Your task to perform on an android device: What's on my calendar today? Image 0: 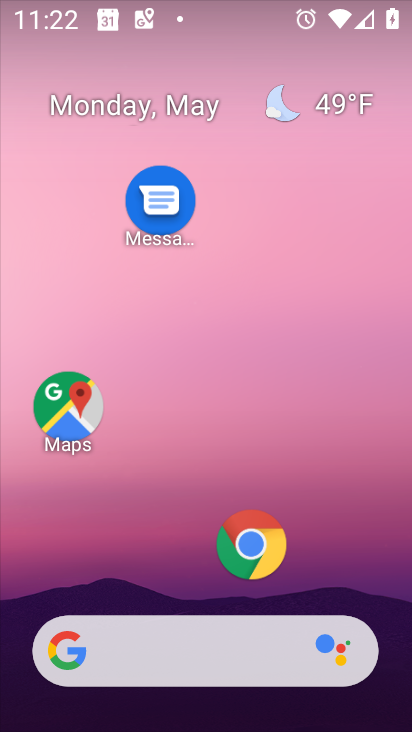
Step 0: drag from (179, 580) to (186, 4)
Your task to perform on an android device: What's on my calendar today? Image 1: 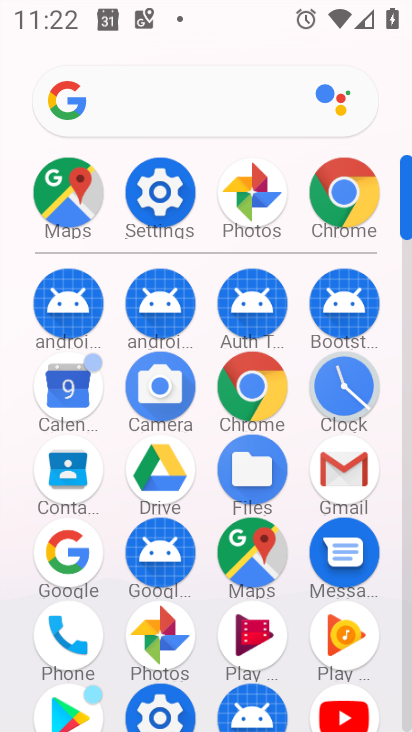
Step 1: click (59, 381)
Your task to perform on an android device: What's on my calendar today? Image 2: 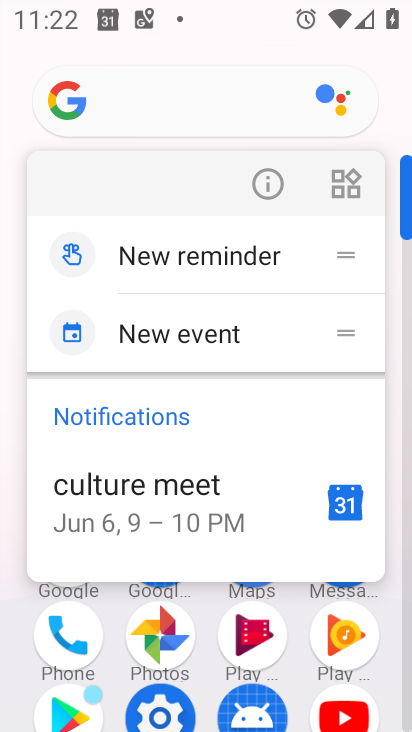
Step 2: press home button
Your task to perform on an android device: What's on my calendar today? Image 3: 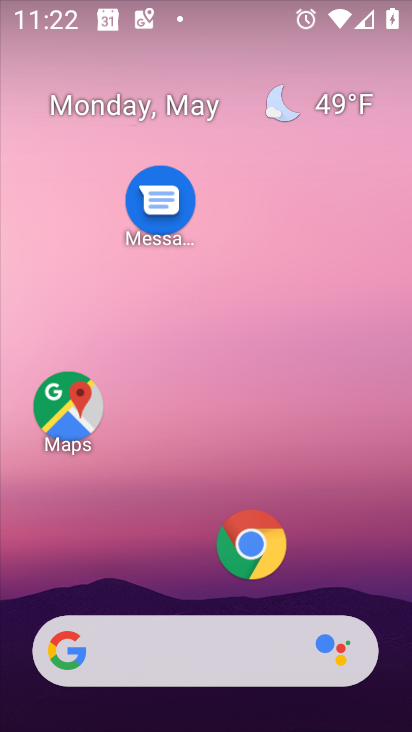
Step 3: drag from (112, 595) to (99, 299)
Your task to perform on an android device: What's on my calendar today? Image 4: 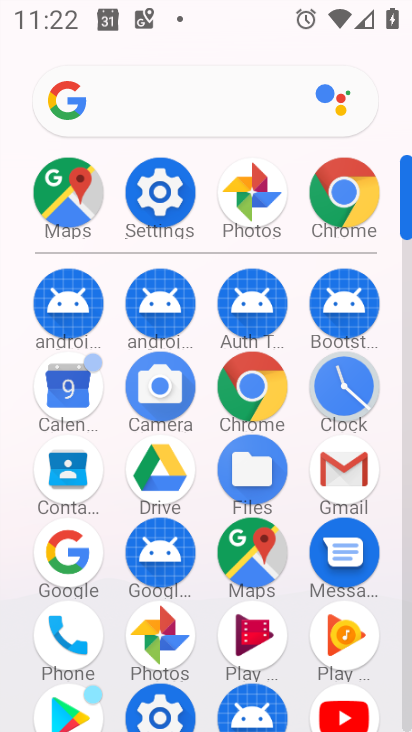
Step 4: click (68, 399)
Your task to perform on an android device: What's on my calendar today? Image 5: 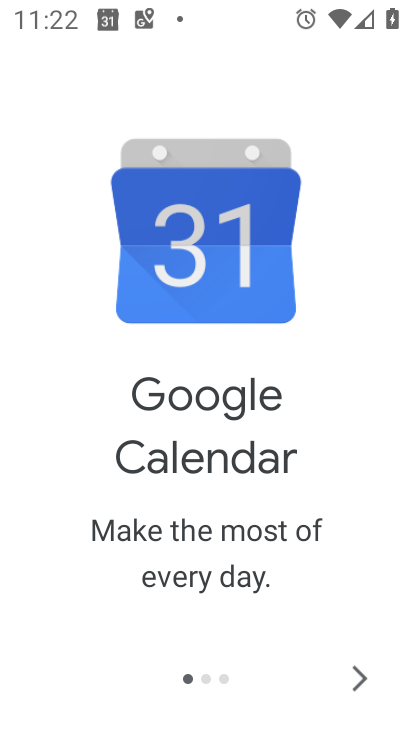
Step 5: click (348, 689)
Your task to perform on an android device: What's on my calendar today? Image 6: 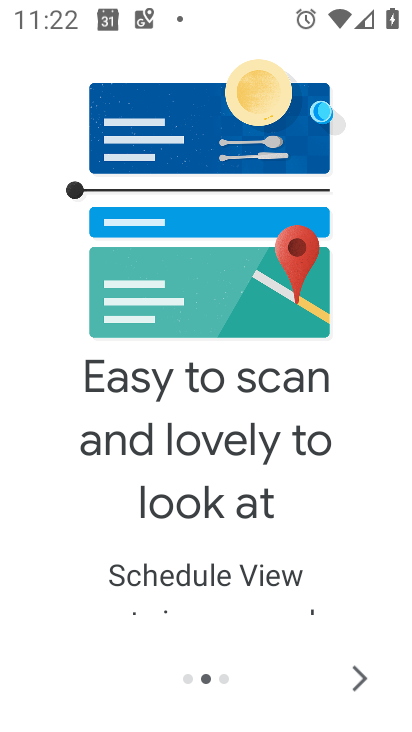
Step 6: click (348, 689)
Your task to perform on an android device: What's on my calendar today? Image 7: 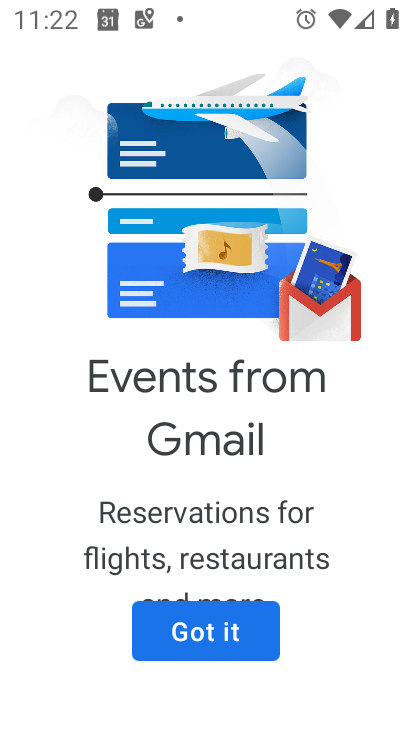
Step 7: click (183, 651)
Your task to perform on an android device: What's on my calendar today? Image 8: 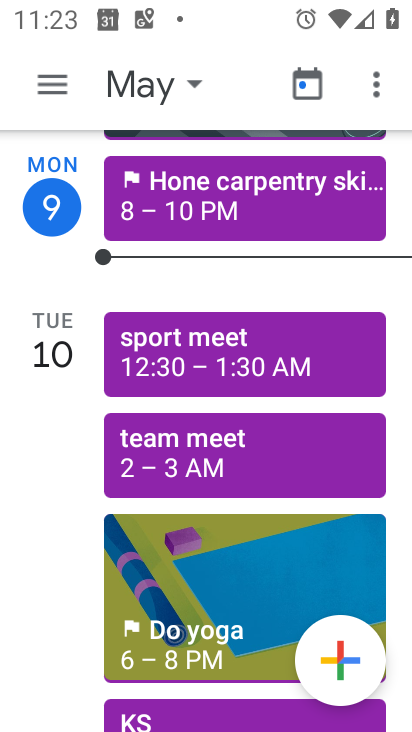
Step 8: click (123, 105)
Your task to perform on an android device: What's on my calendar today? Image 9: 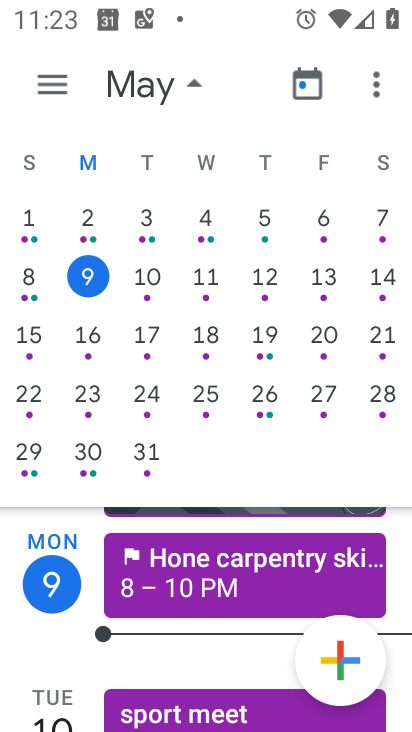
Step 9: click (91, 270)
Your task to perform on an android device: What's on my calendar today? Image 10: 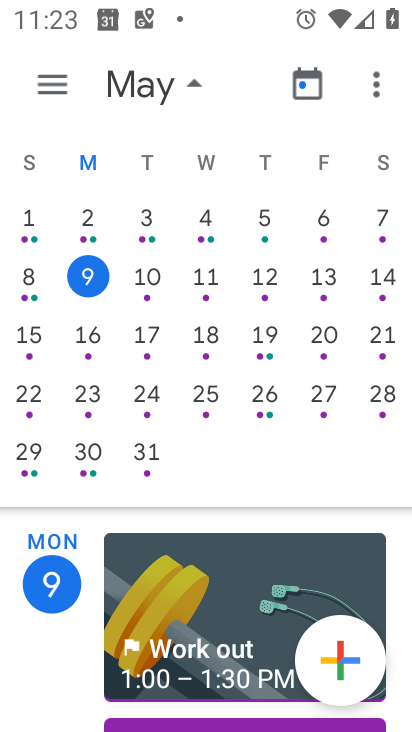
Step 10: task complete